Your task to perform on an android device: delete a single message in the gmail app Image 0: 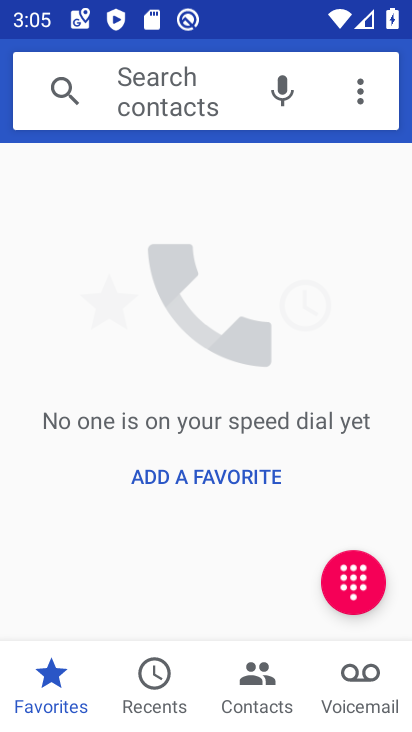
Step 0: press home button
Your task to perform on an android device: delete a single message in the gmail app Image 1: 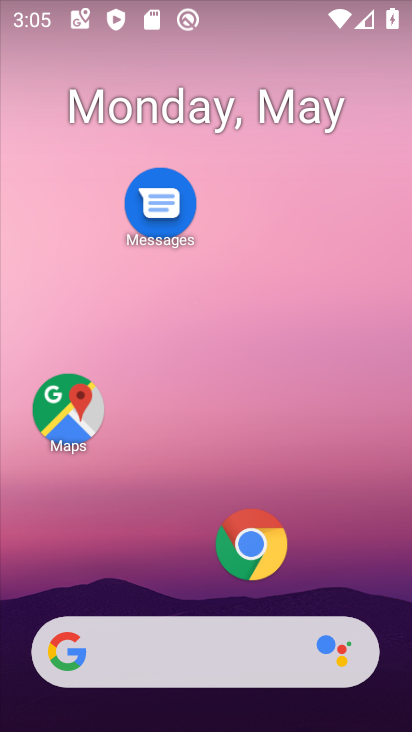
Step 1: drag from (170, 572) to (236, 224)
Your task to perform on an android device: delete a single message in the gmail app Image 2: 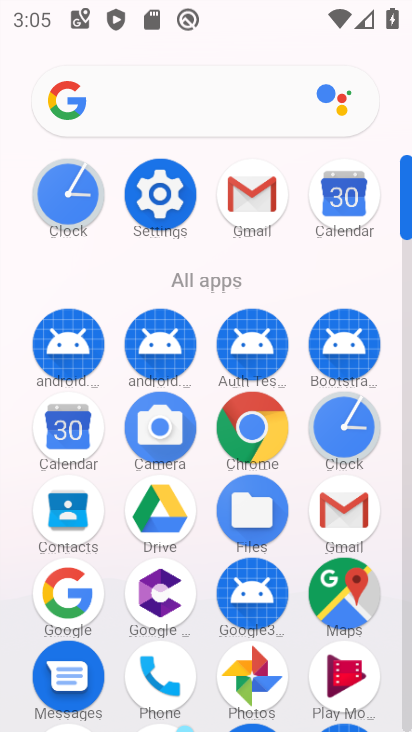
Step 2: click (228, 209)
Your task to perform on an android device: delete a single message in the gmail app Image 3: 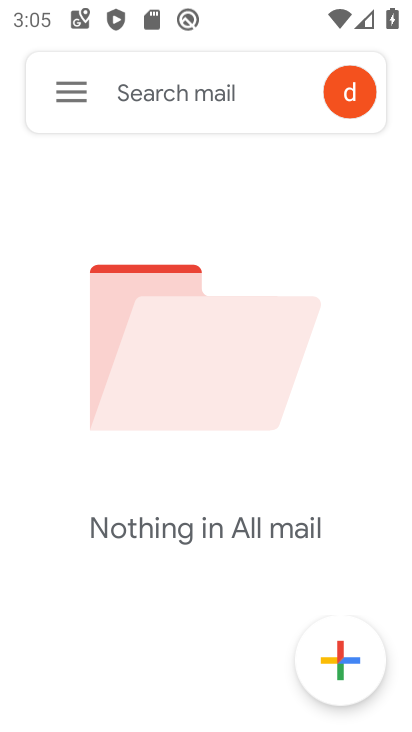
Step 3: click (81, 83)
Your task to perform on an android device: delete a single message in the gmail app Image 4: 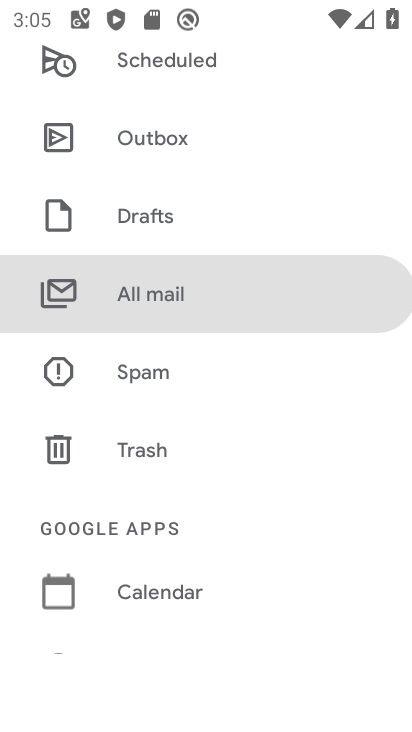
Step 4: drag from (145, 169) to (158, 335)
Your task to perform on an android device: delete a single message in the gmail app Image 5: 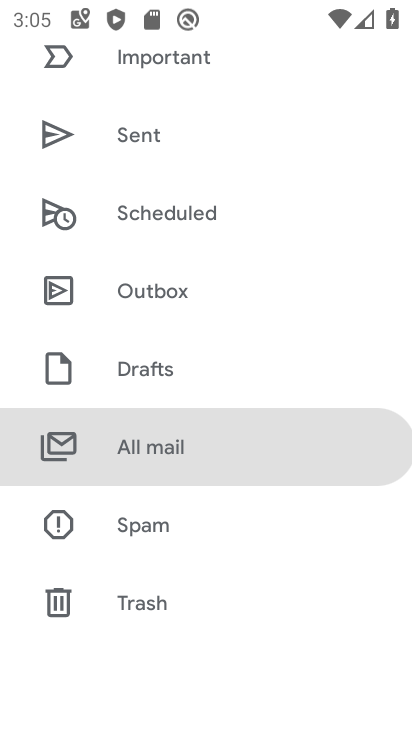
Step 5: click (149, 414)
Your task to perform on an android device: delete a single message in the gmail app Image 6: 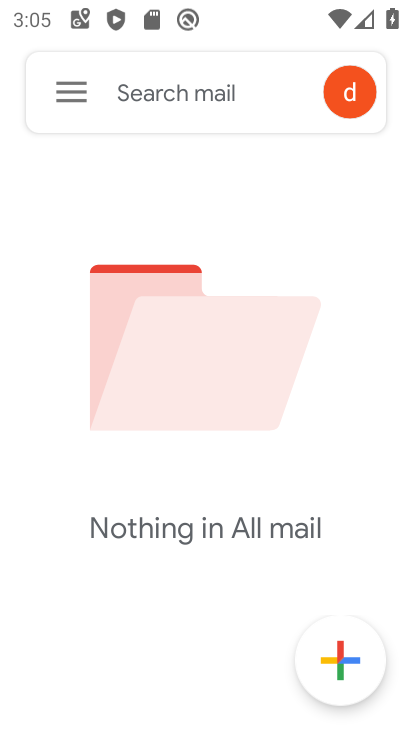
Step 6: task complete